Your task to perform on an android device: remove spam from my inbox in the gmail app Image 0: 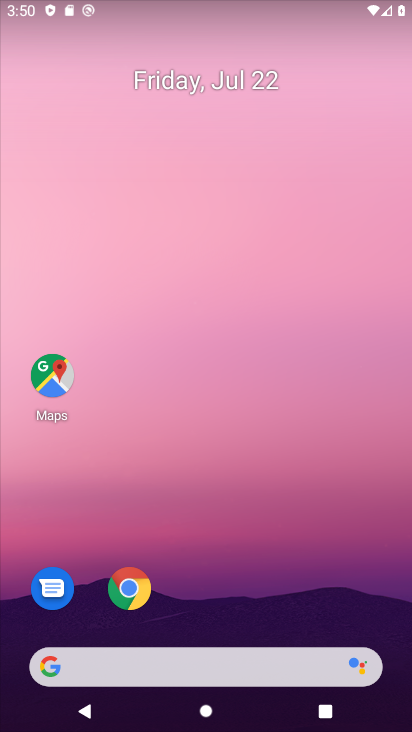
Step 0: drag from (204, 611) to (183, 179)
Your task to perform on an android device: remove spam from my inbox in the gmail app Image 1: 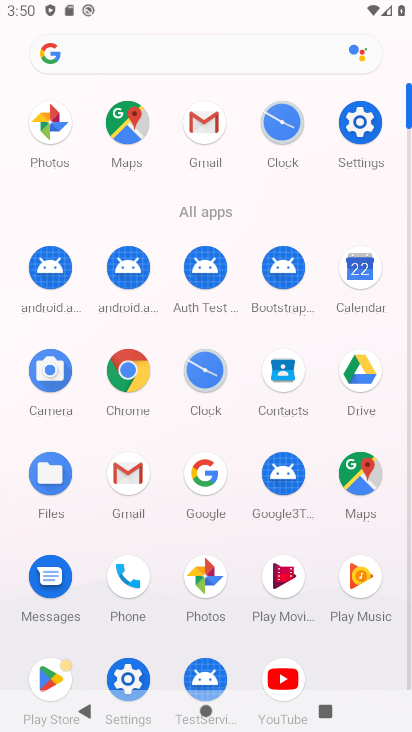
Step 1: click (219, 134)
Your task to perform on an android device: remove spam from my inbox in the gmail app Image 2: 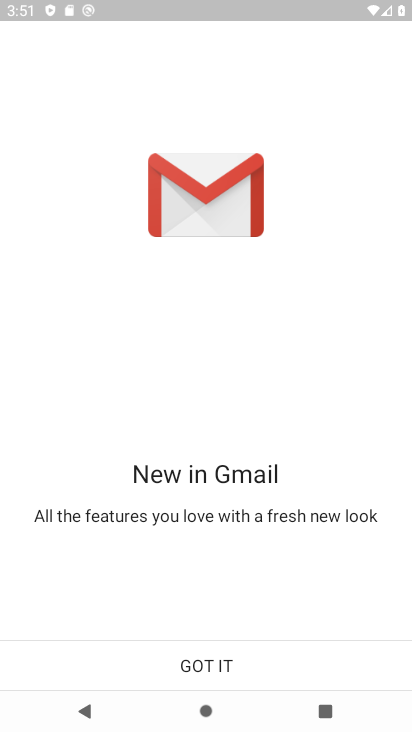
Step 2: click (247, 655)
Your task to perform on an android device: remove spam from my inbox in the gmail app Image 3: 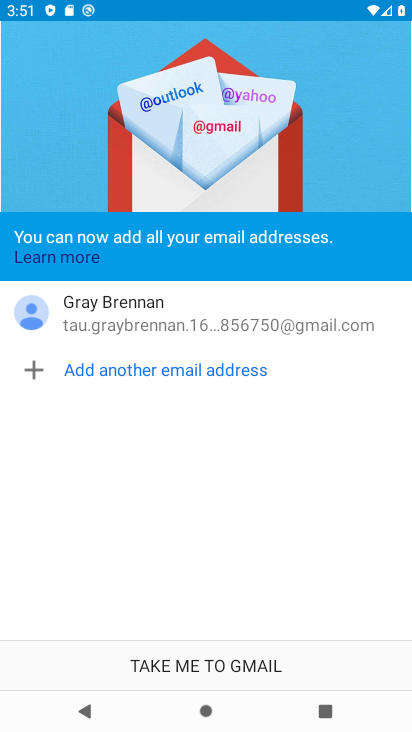
Step 3: click (253, 676)
Your task to perform on an android device: remove spam from my inbox in the gmail app Image 4: 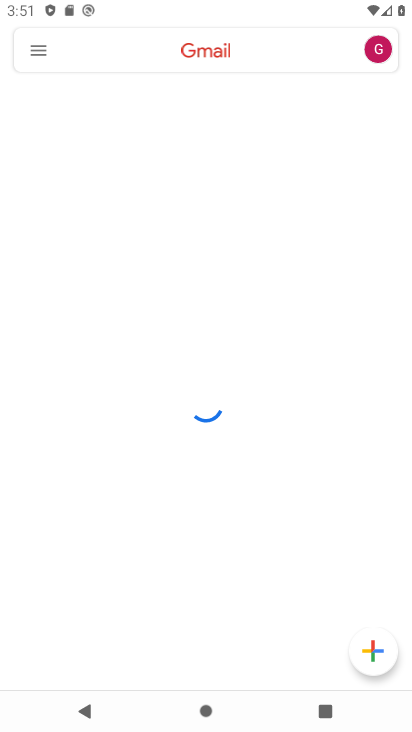
Step 4: click (36, 66)
Your task to perform on an android device: remove spam from my inbox in the gmail app Image 5: 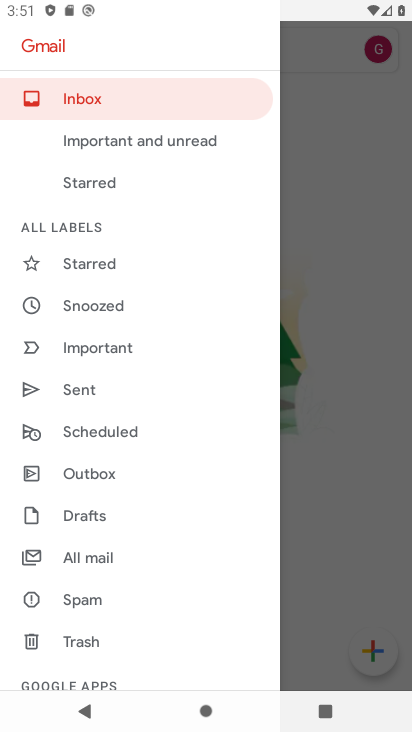
Step 5: click (107, 591)
Your task to perform on an android device: remove spam from my inbox in the gmail app Image 6: 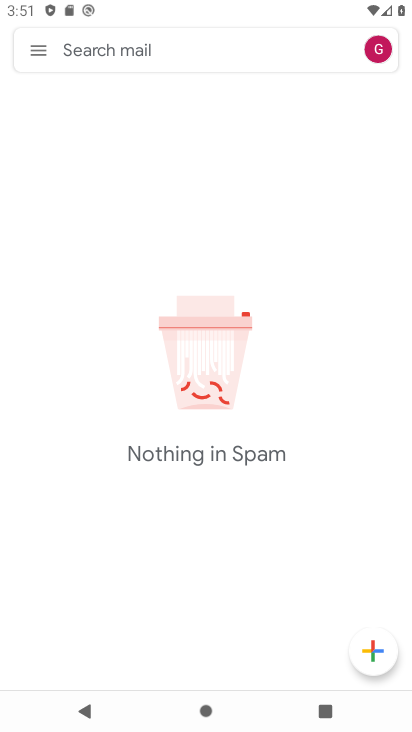
Step 6: task complete